Your task to perform on an android device: turn off javascript in the chrome app Image 0: 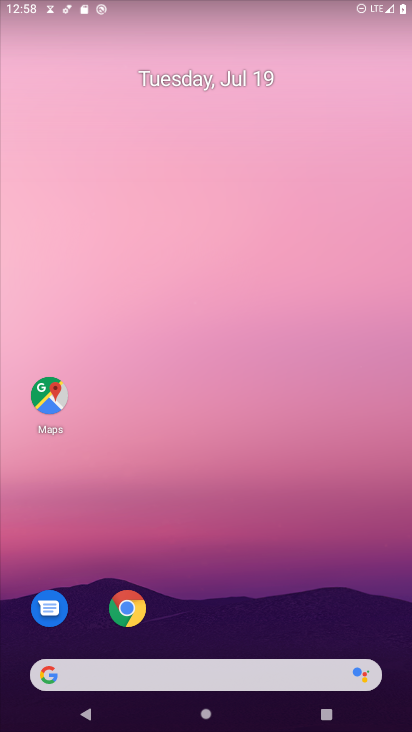
Step 0: drag from (316, 532) to (306, 17)
Your task to perform on an android device: turn off javascript in the chrome app Image 1: 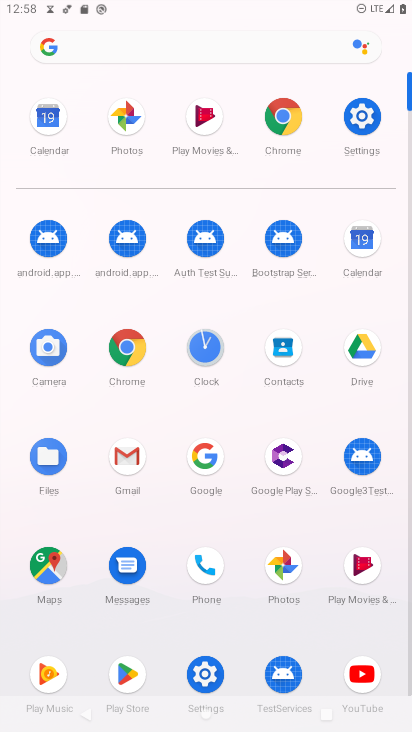
Step 1: click (136, 353)
Your task to perform on an android device: turn off javascript in the chrome app Image 2: 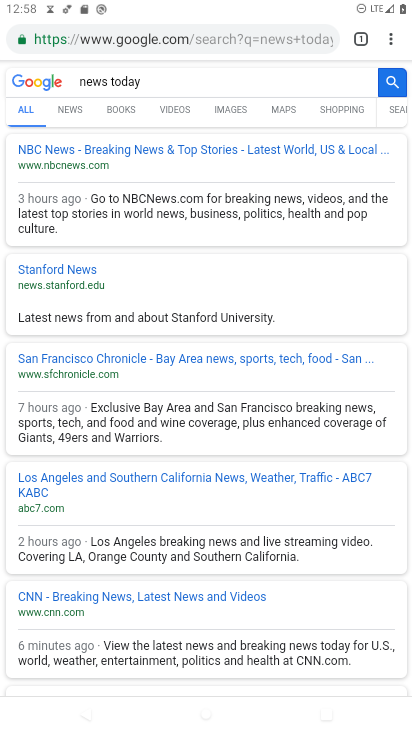
Step 2: click (391, 39)
Your task to perform on an android device: turn off javascript in the chrome app Image 3: 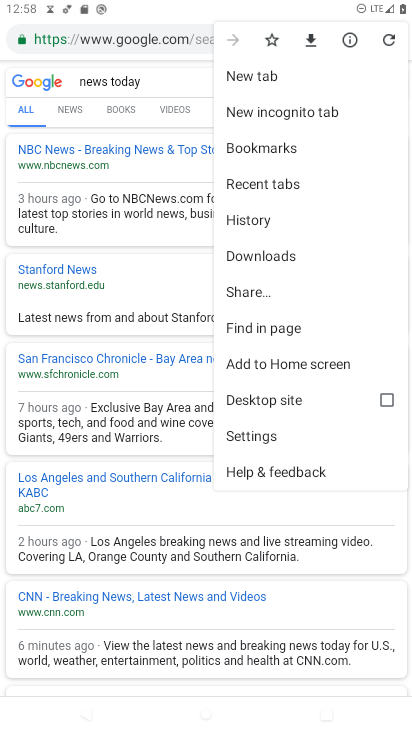
Step 3: click (296, 438)
Your task to perform on an android device: turn off javascript in the chrome app Image 4: 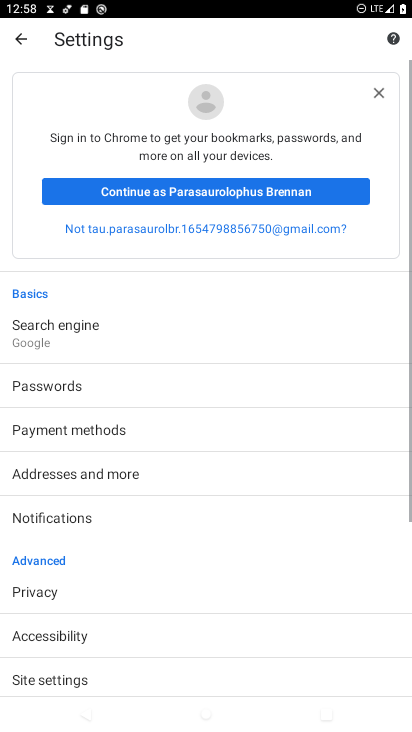
Step 4: drag from (201, 575) to (179, 230)
Your task to perform on an android device: turn off javascript in the chrome app Image 5: 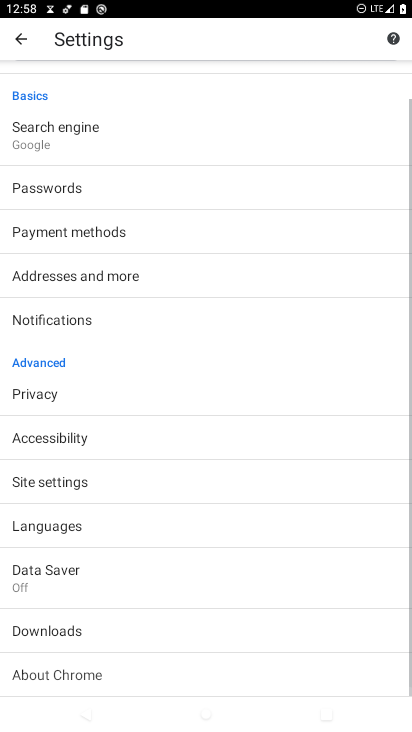
Step 5: click (199, 304)
Your task to perform on an android device: turn off javascript in the chrome app Image 6: 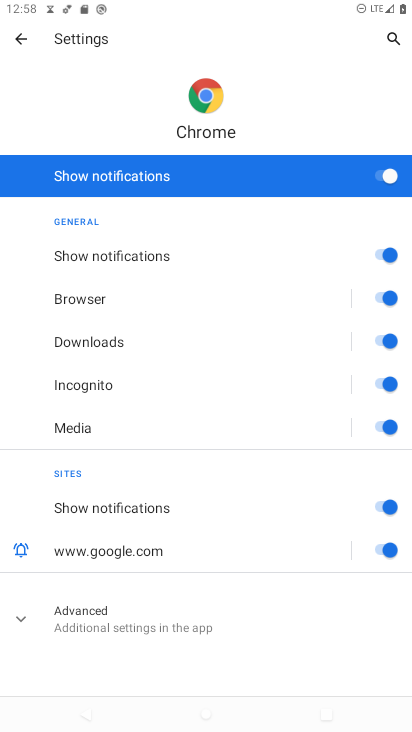
Step 6: press back button
Your task to perform on an android device: turn off javascript in the chrome app Image 7: 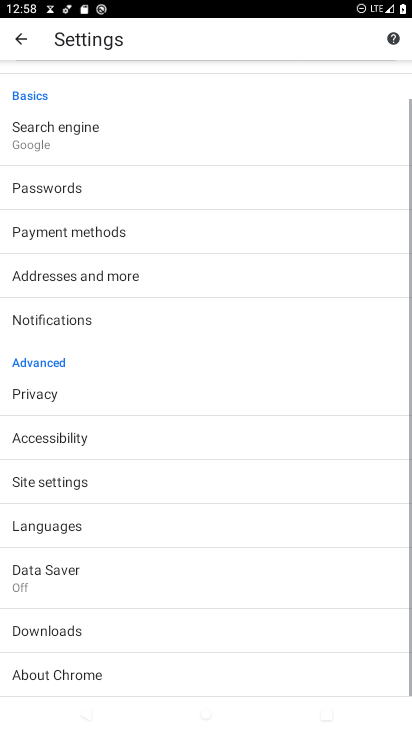
Step 7: click (139, 486)
Your task to perform on an android device: turn off javascript in the chrome app Image 8: 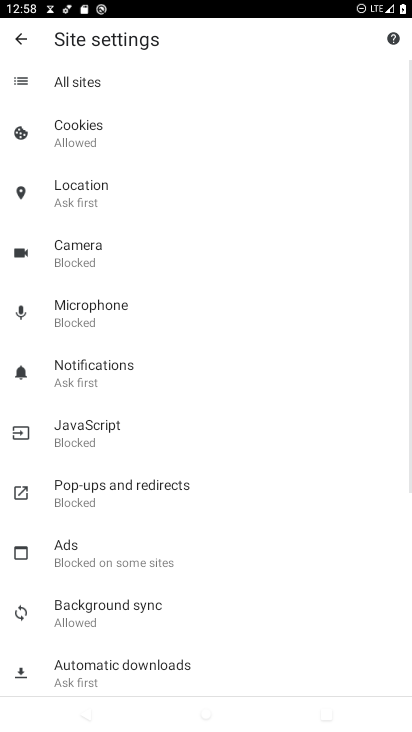
Step 8: click (129, 431)
Your task to perform on an android device: turn off javascript in the chrome app Image 9: 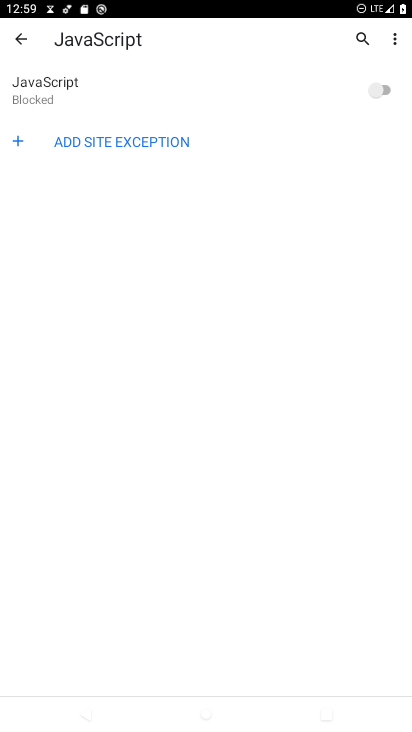
Step 9: task complete